Your task to perform on an android device: Turn off the flashlight Image 0: 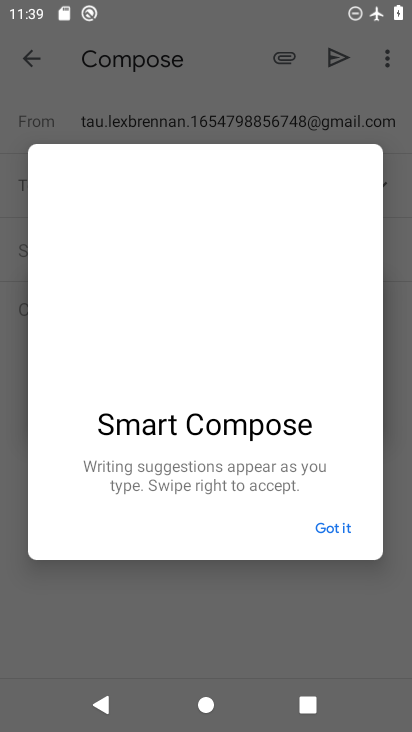
Step 0: press home button
Your task to perform on an android device: Turn off the flashlight Image 1: 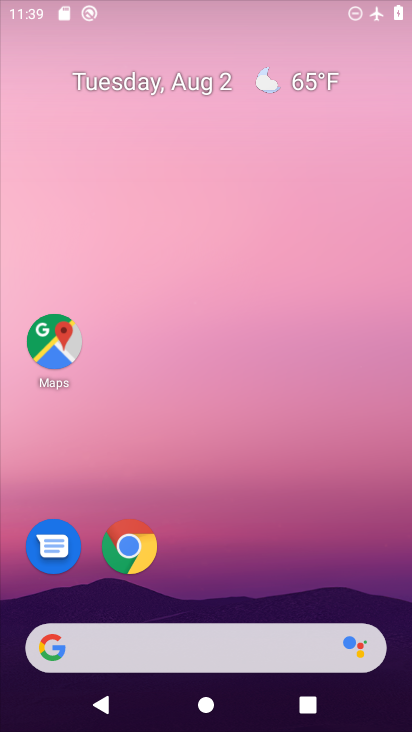
Step 1: drag from (197, 581) to (207, 119)
Your task to perform on an android device: Turn off the flashlight Image 2: 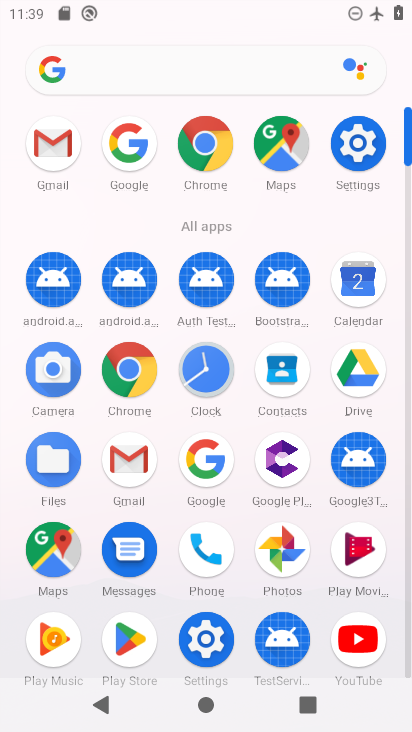
Step 2: click (383, 152)
Your task to perform on an android device: Turn off the flashlight Image 3: 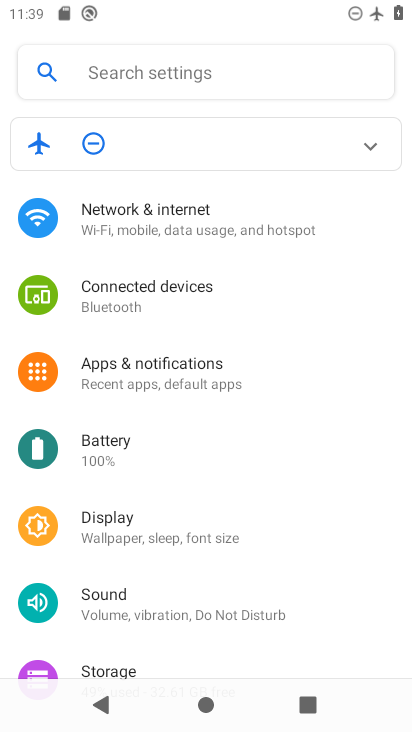
Step 3: task complete